Your task to perform on an android device: delete a single message in the gmail app Image 0: 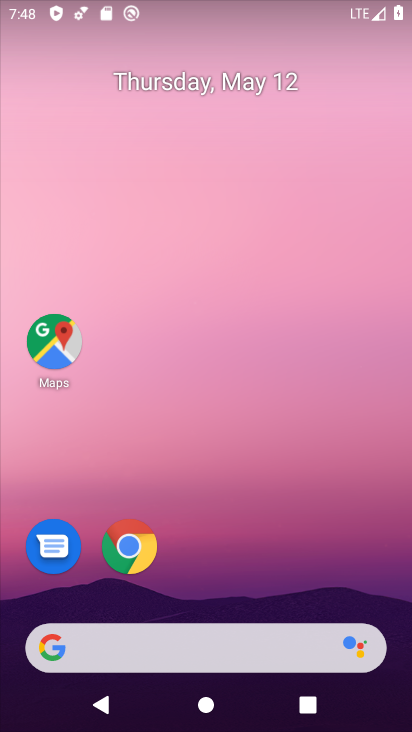
Step 0: drag from (205, 578) to (235, 129)
Your task to perform on an android device: delete a single message in the gmail app Image 1: 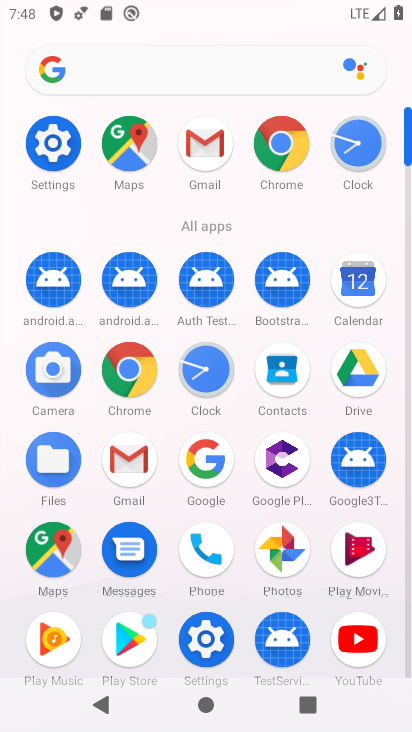
Step 1: click (213, 143)
Your task to perform on an android device: delete a single message in the gmail app Image 2: 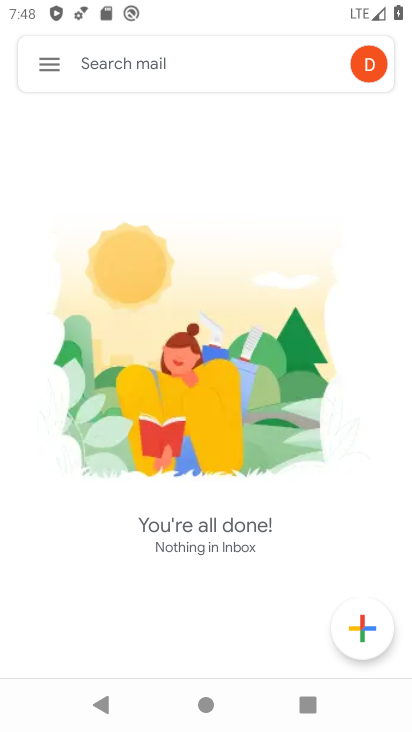
Step 2: click (47, 62)
Your task to perform on an android device: delete a single message in the gmail app Image 3: 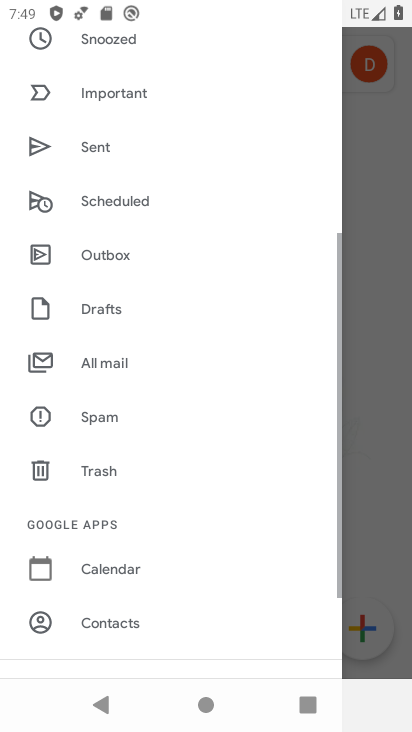
Step 3: click (113, 363)
Your task to perform on an android device: delete a single message in the gmail app Image 4: 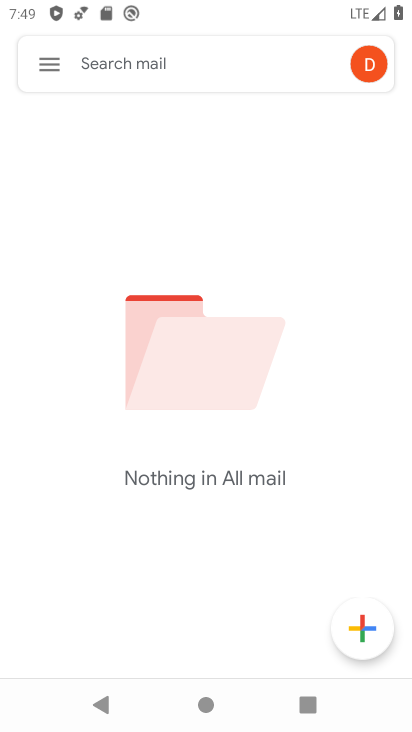
Step 4: task complete